Your task to perform on an android device: Search for seafood restaurants on Google Maps Image 0: 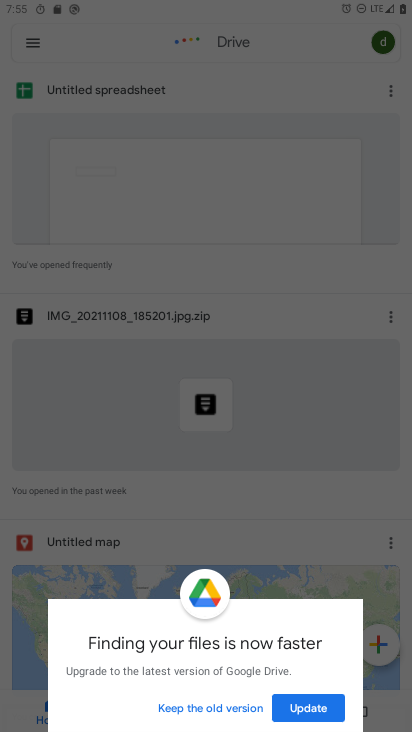
Step 0: press home button
Your task to perform on an android device: Search for seafood restaurants on Google Maps Image 1: 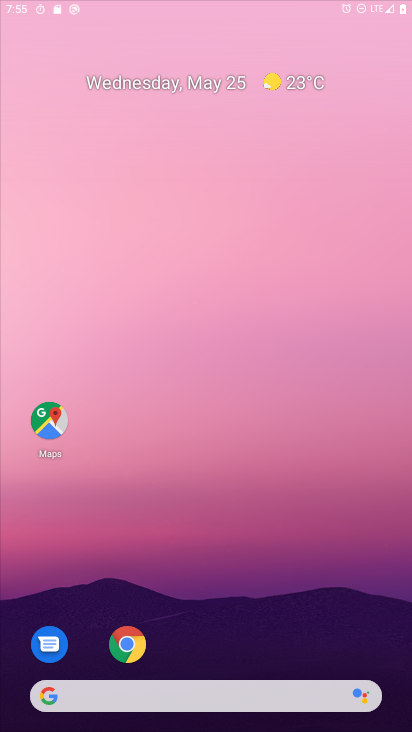
Step 1: drag from (388, 638) to (310, 17)
Your task to perform on an android device: Search for seafood restaurants on Google Maps Image 2: 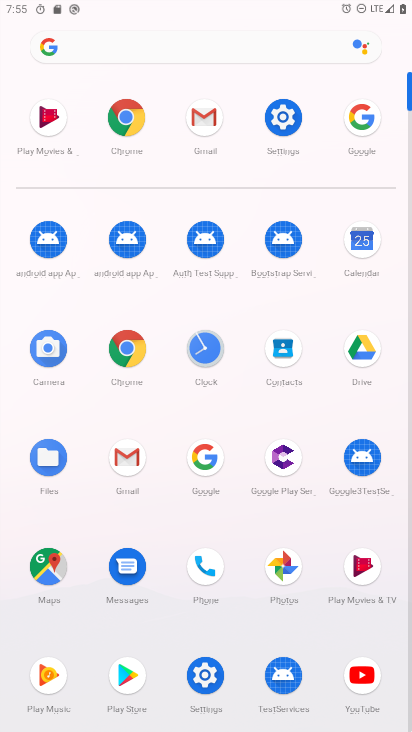
Step 2: click (54, 564)
Your task to perform on an android device: Search for seafood restaurants on Google Maps Image 3: 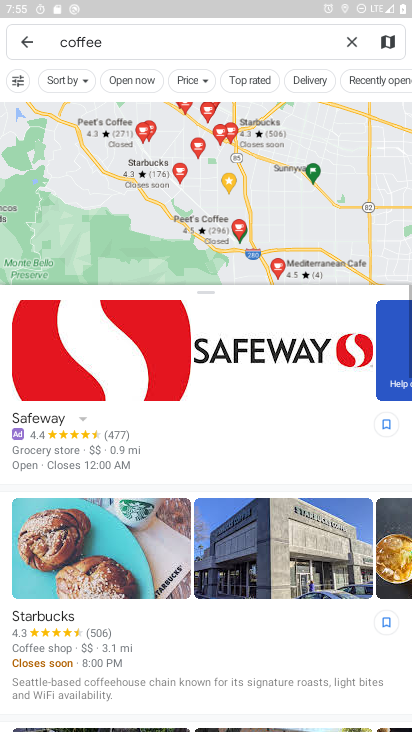
Step 3: click (361, 49)
Your task to perform on an android device: Search for seafood restaurants on Google Maps Image 4: 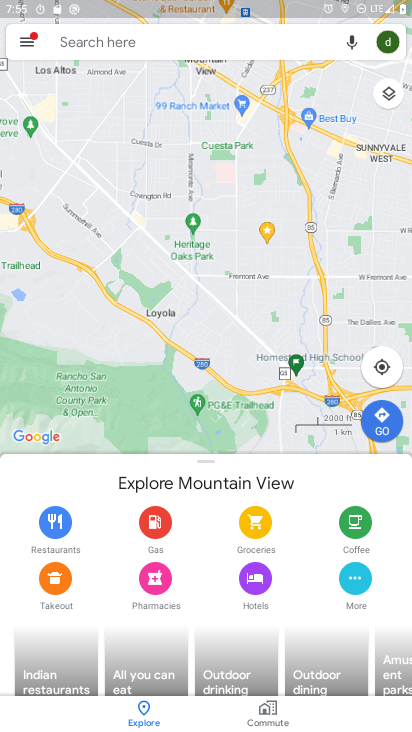
Step 4: click (258, 48)
Your task to perform on an android device: Search for seafood restaurants on Google Maps Image 5: 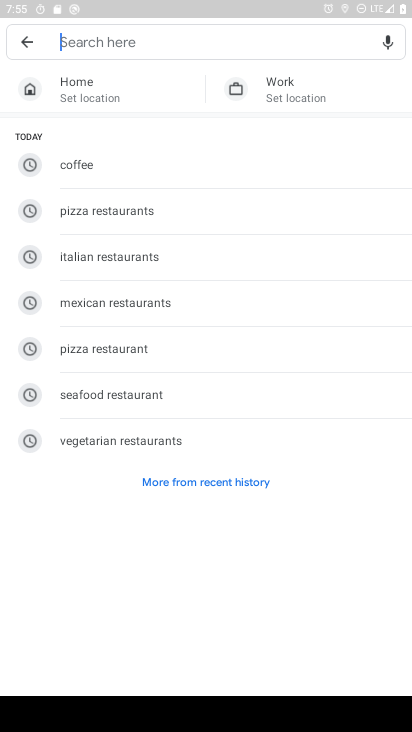
Step 5: click (100, 388)
Your task to perform on an android device: Search for seafood restaurants on Google Maps Image 6: 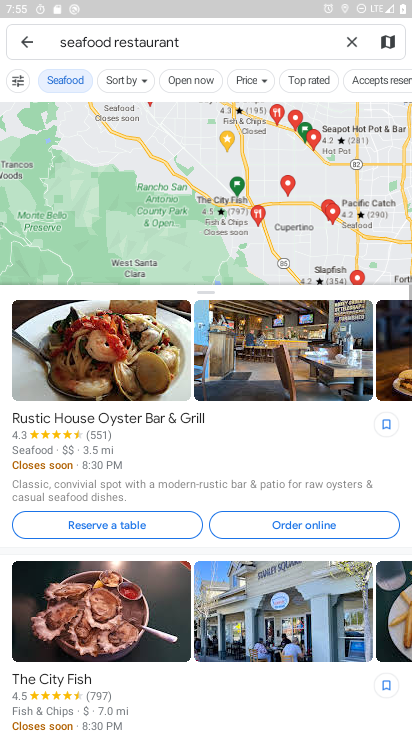
Step 6: task complete